Your task to perform on an android device: Open settings Image 0: 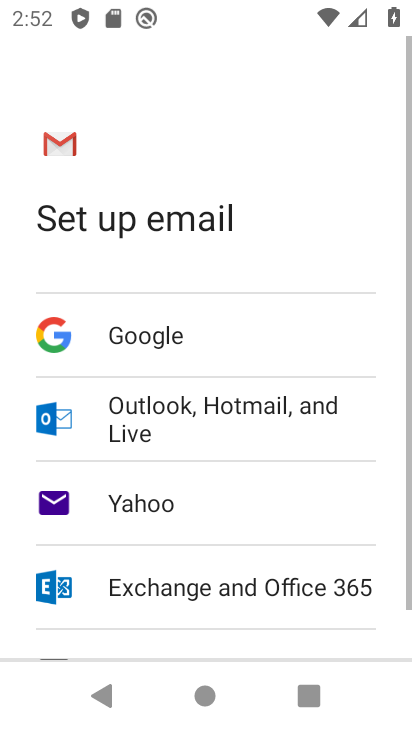
Step 0: press home button
Your task to perform on an android device: Open settings Image 1: 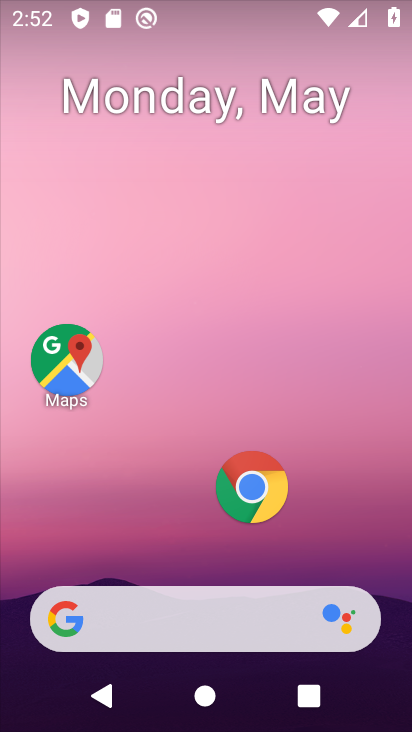
Step 1: drag from (178, 542) to (156, 59)
Your task to perform on an android device: Open settings Image 2: 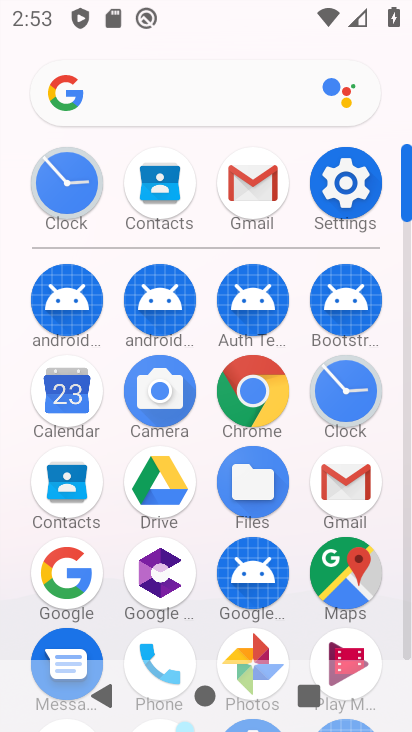
Step 2: click (346, 175)
Your task to perform on an android device: Open settings Image 3: 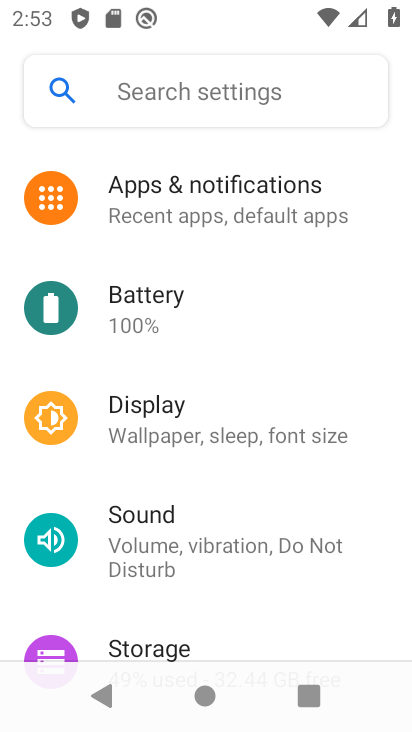
Step 3: task complete